Your task to perform on an android device: Add alienware aurora to the cart on amazon Image 0: 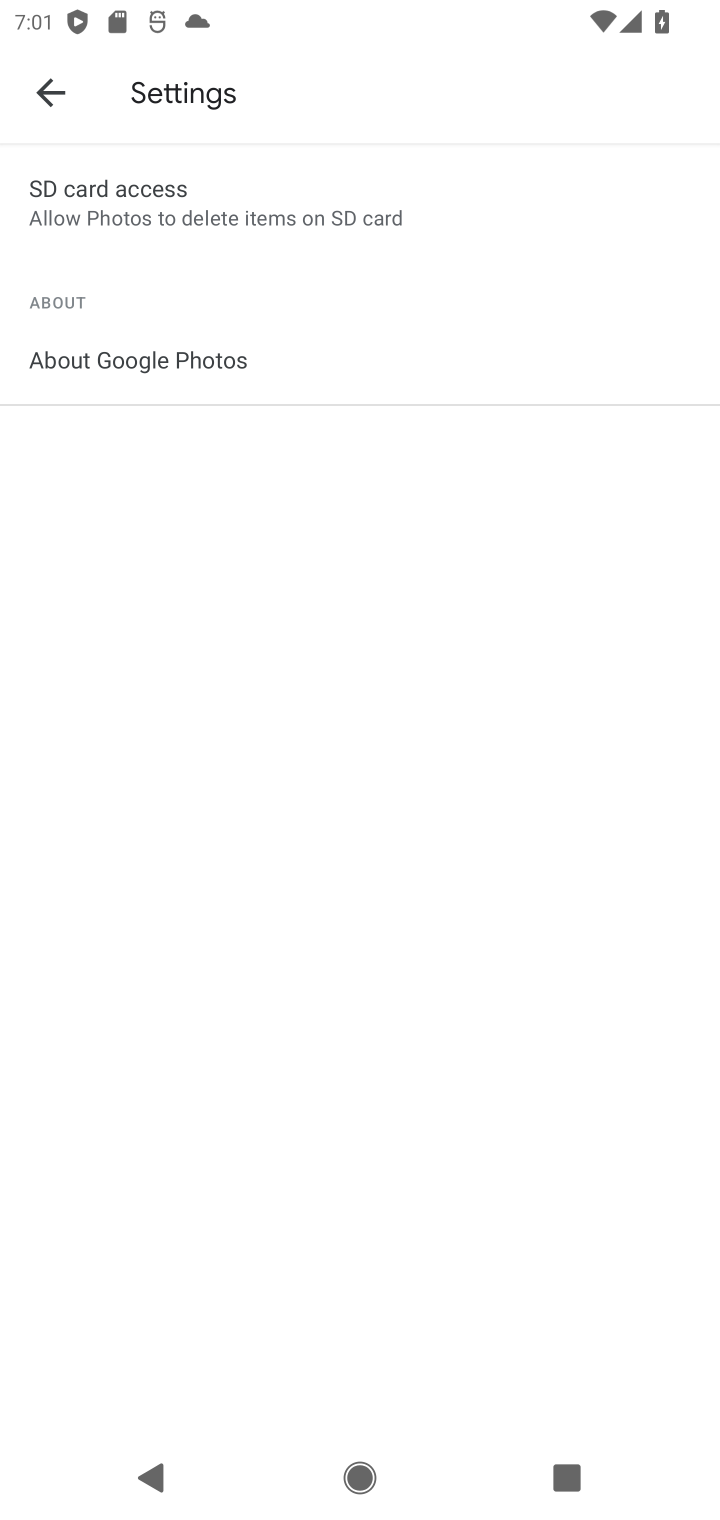
Step 0: press home button
Your task to perform on an android device: Add alienware aurora to the cart on amazon Image 1: 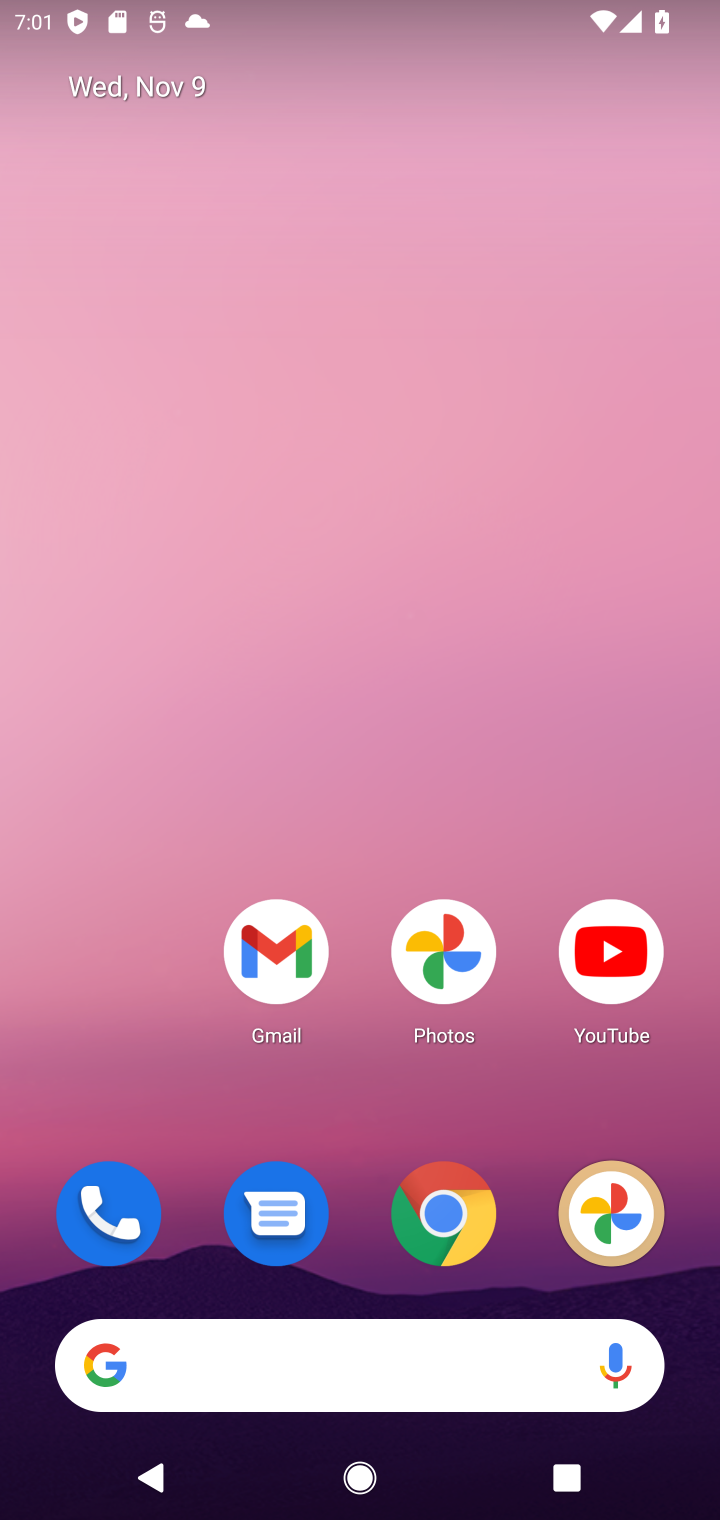
Step 1: click (428, 1227)
Your task to perform on an android device: Add alienware aurora to the cart on amazon Image 2: 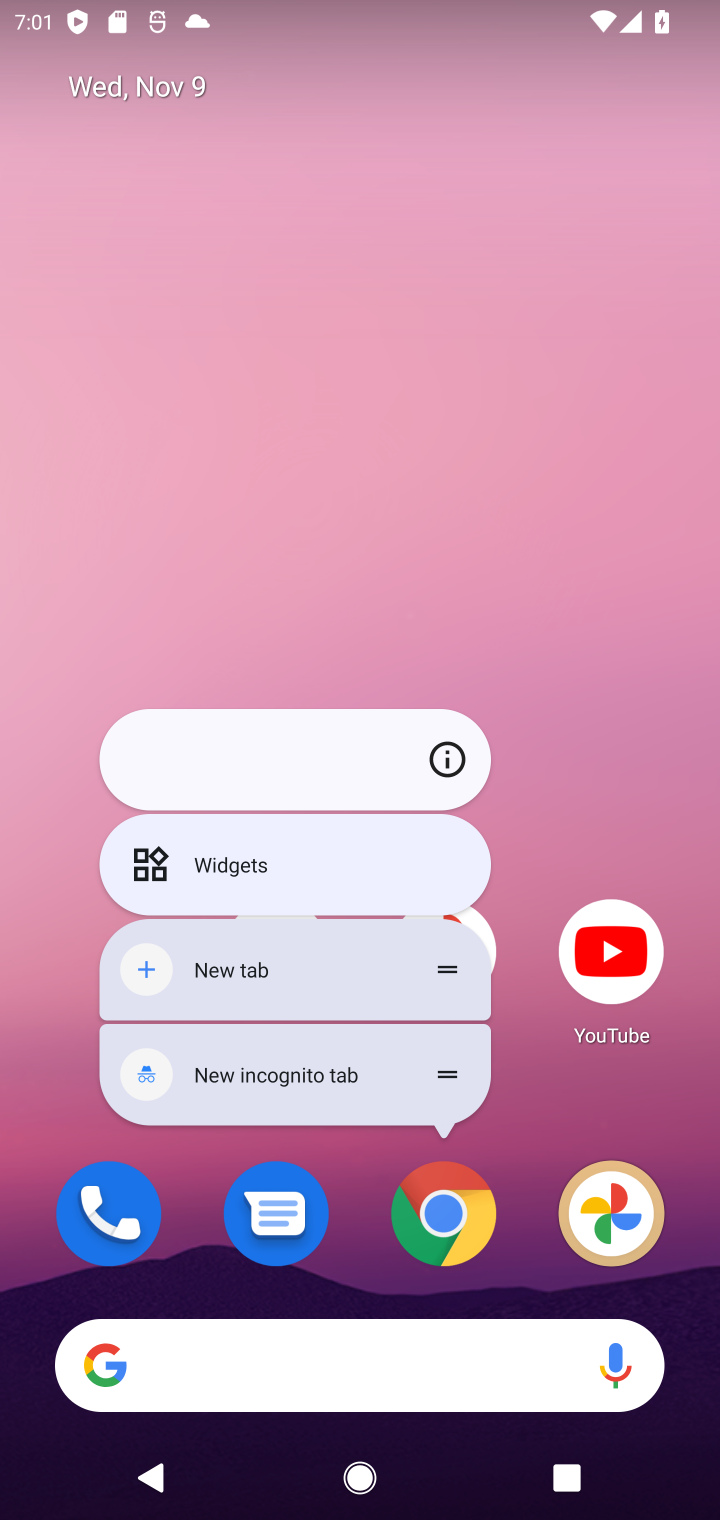
Step 2: click (475, 1246)
Your task to perform on an android device: Add alienware aurora to the cart on amazon Image 3: 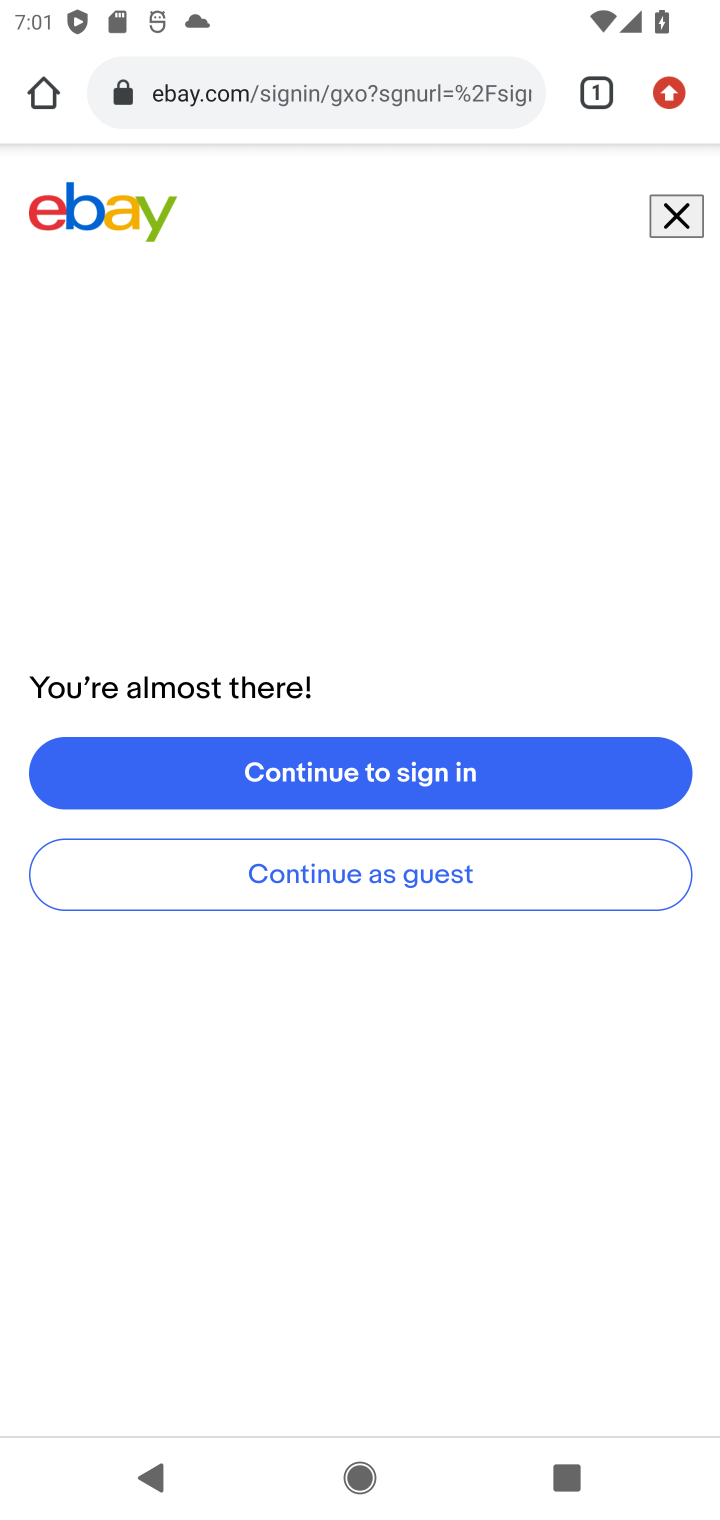
Step 3: click (351, 105)
Your task to perform on an android device: Add alienware aurora to the cart on amazon Image 4: 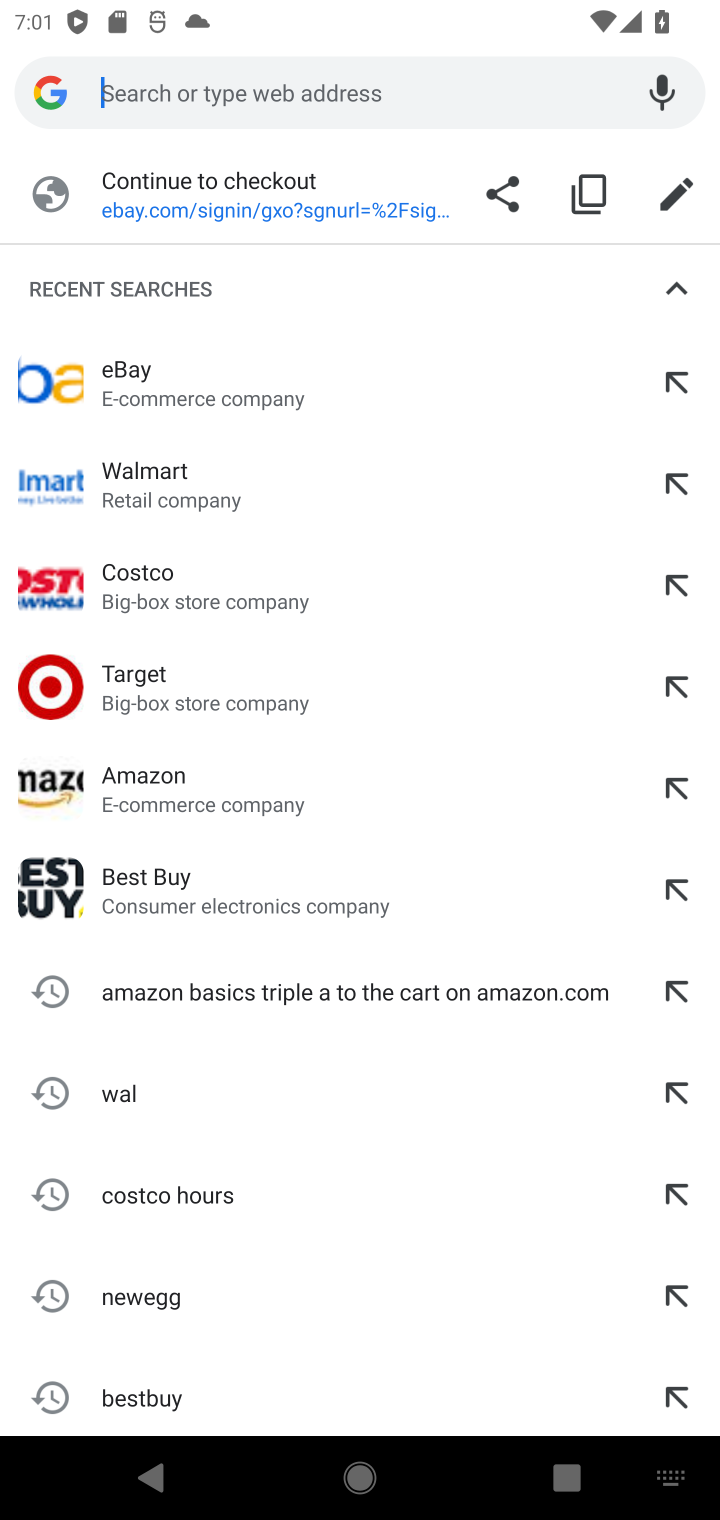
Step 4: type "alienware aurora"
Your task to perform on an android device: Add alienware aurora to the cart on amazon Image 5: 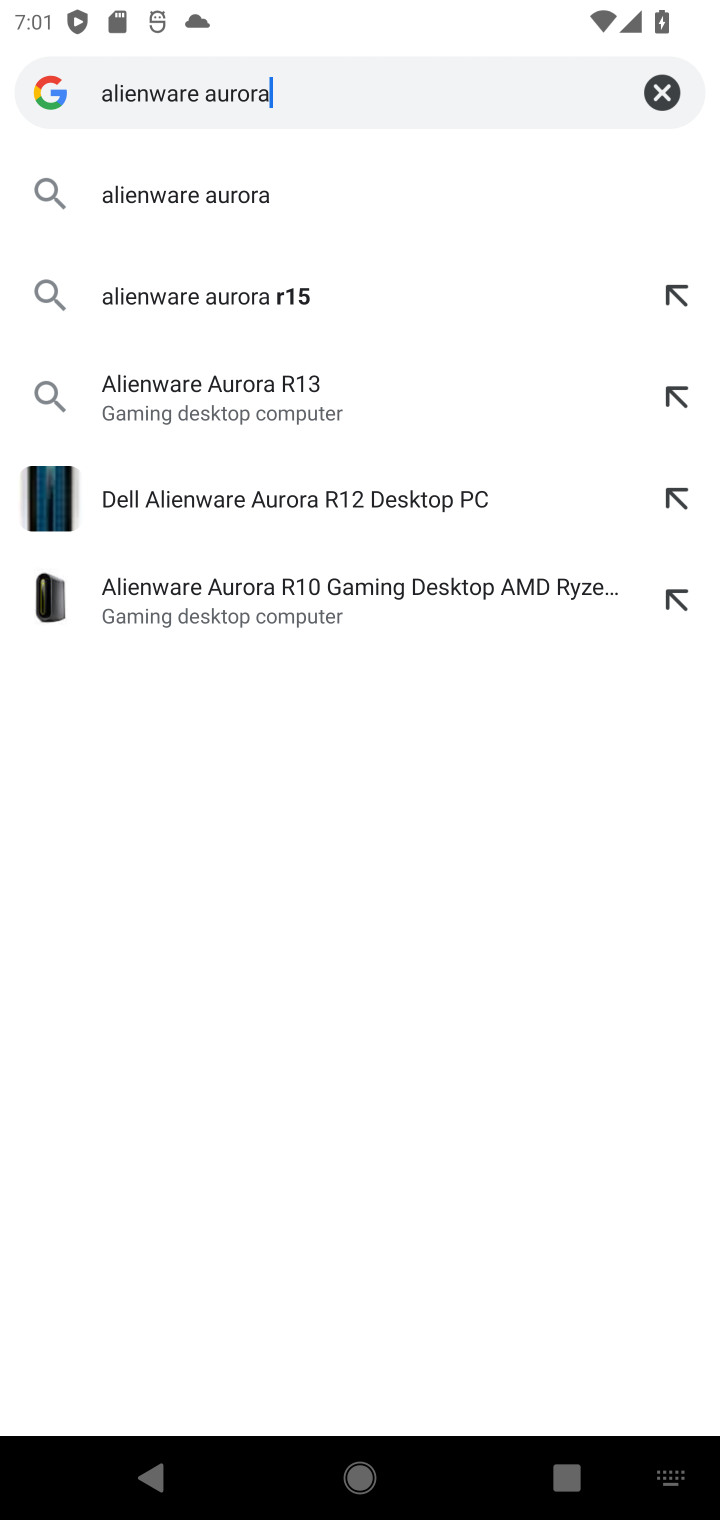
Step 5: click (280, 413)
Your task to perform on an android device: Add alienware aurora to the cart on amazon Image 6: 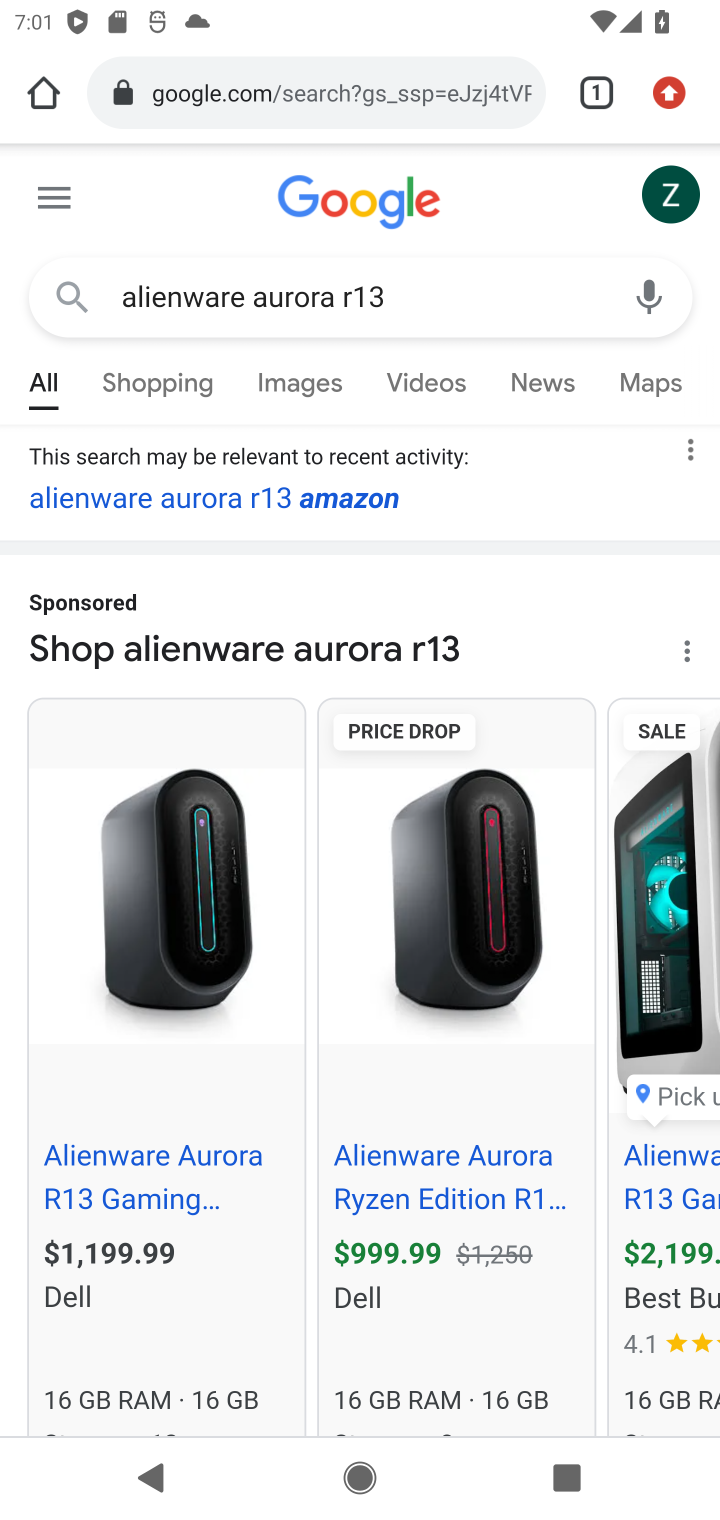
Step 6: click (173, 930)
Your task to perform on an android device: Add alienware aurora to the cart on amazon Image 7: 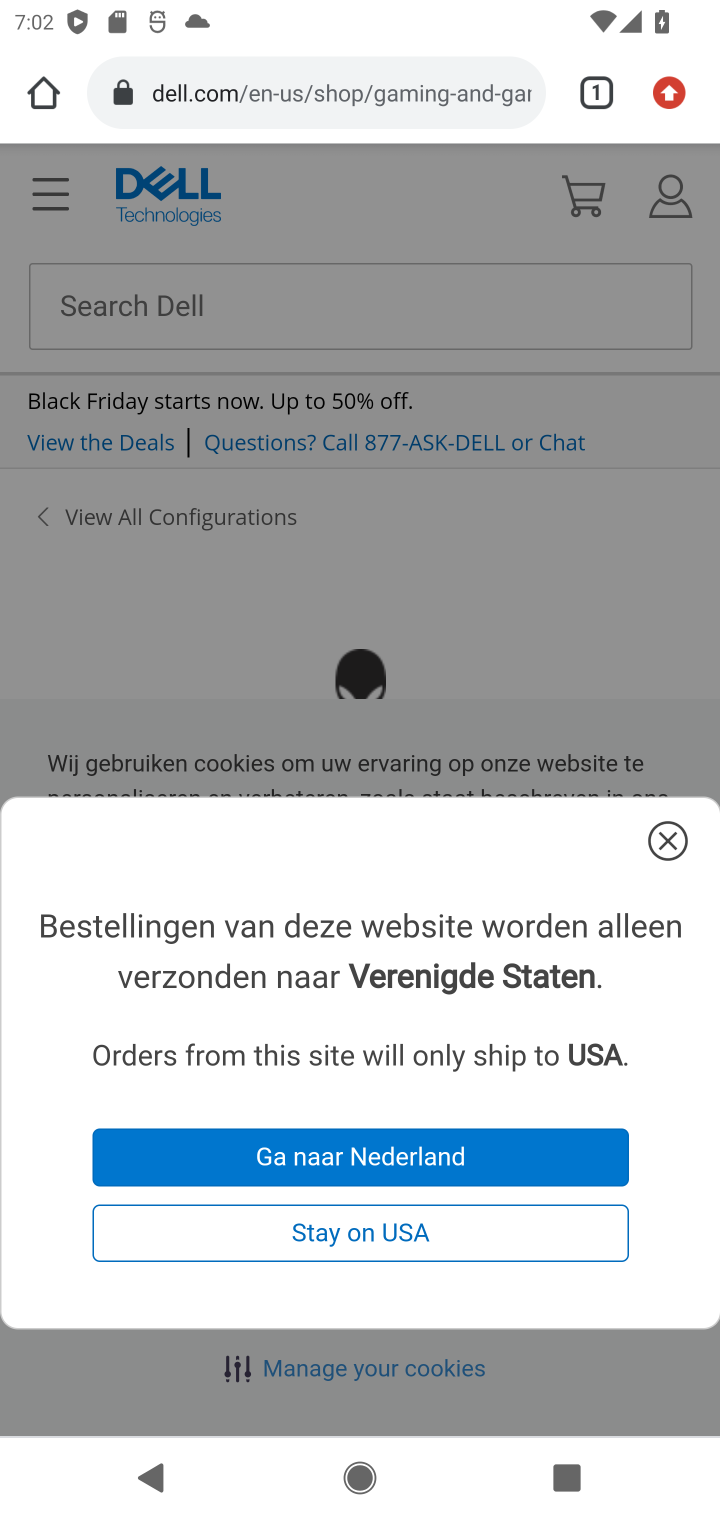
Step 7: click (677, 831)
Your task to perform on an android device: Add alienware aurora to the cart on amazon Image 8: 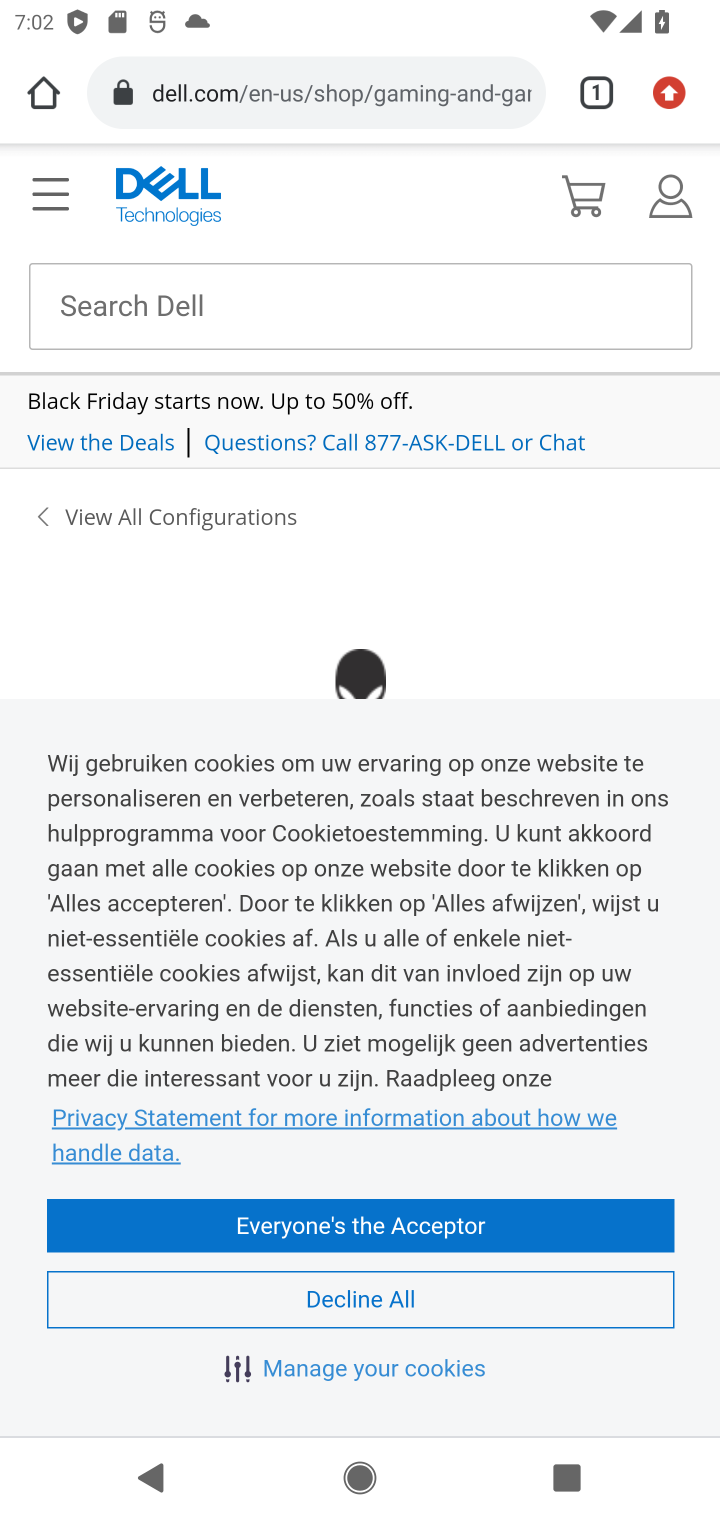
Step 8: click (348, 1305)
Your task to perform on an android device: Add alienware aurora to the cart on amazon Image 9: 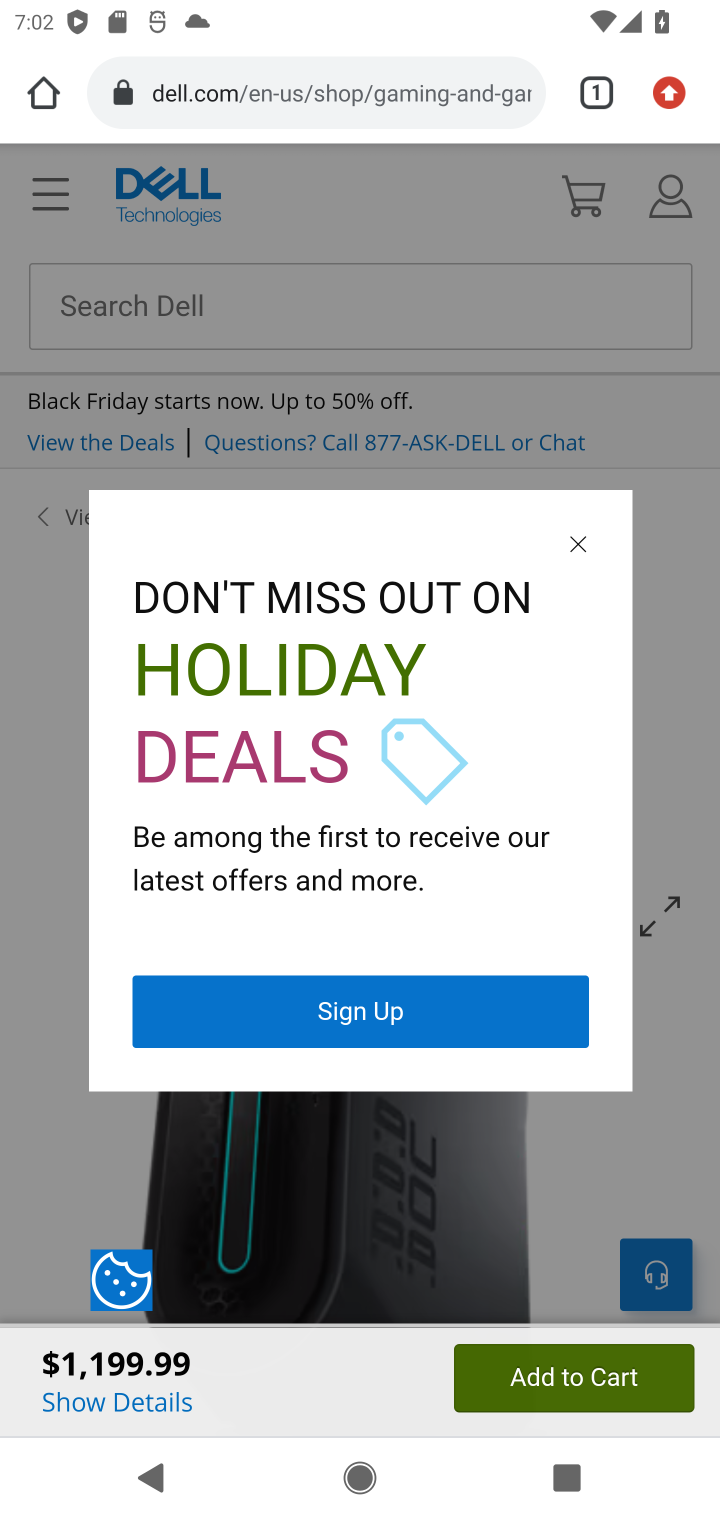
Step 9: click (574, 549)
Your task to perform on an android device: Add alienware aurora to the cart on amazon Image 10: 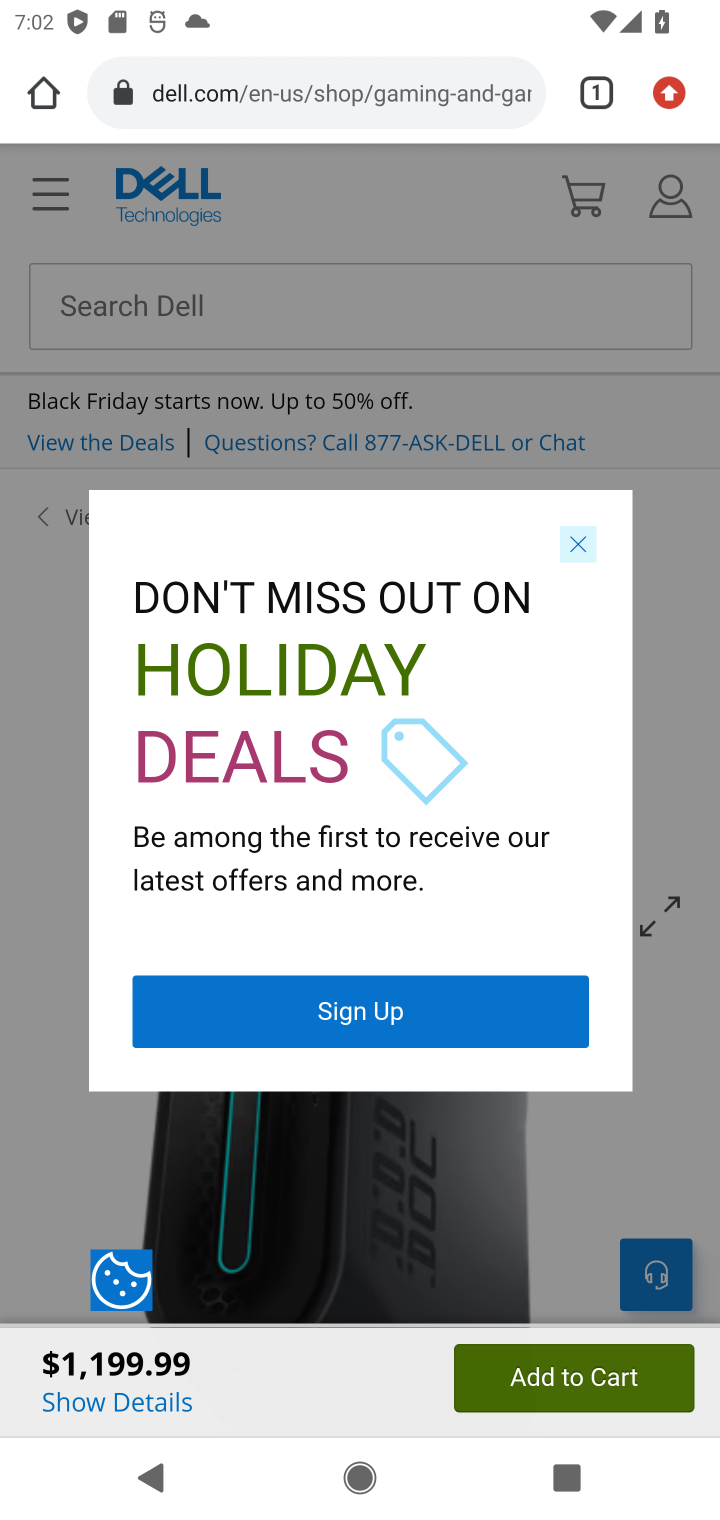
Step 10: click (589, 551)
Your task to perform on an android device: Add alienware aurora to the cart on amazon Image 11: 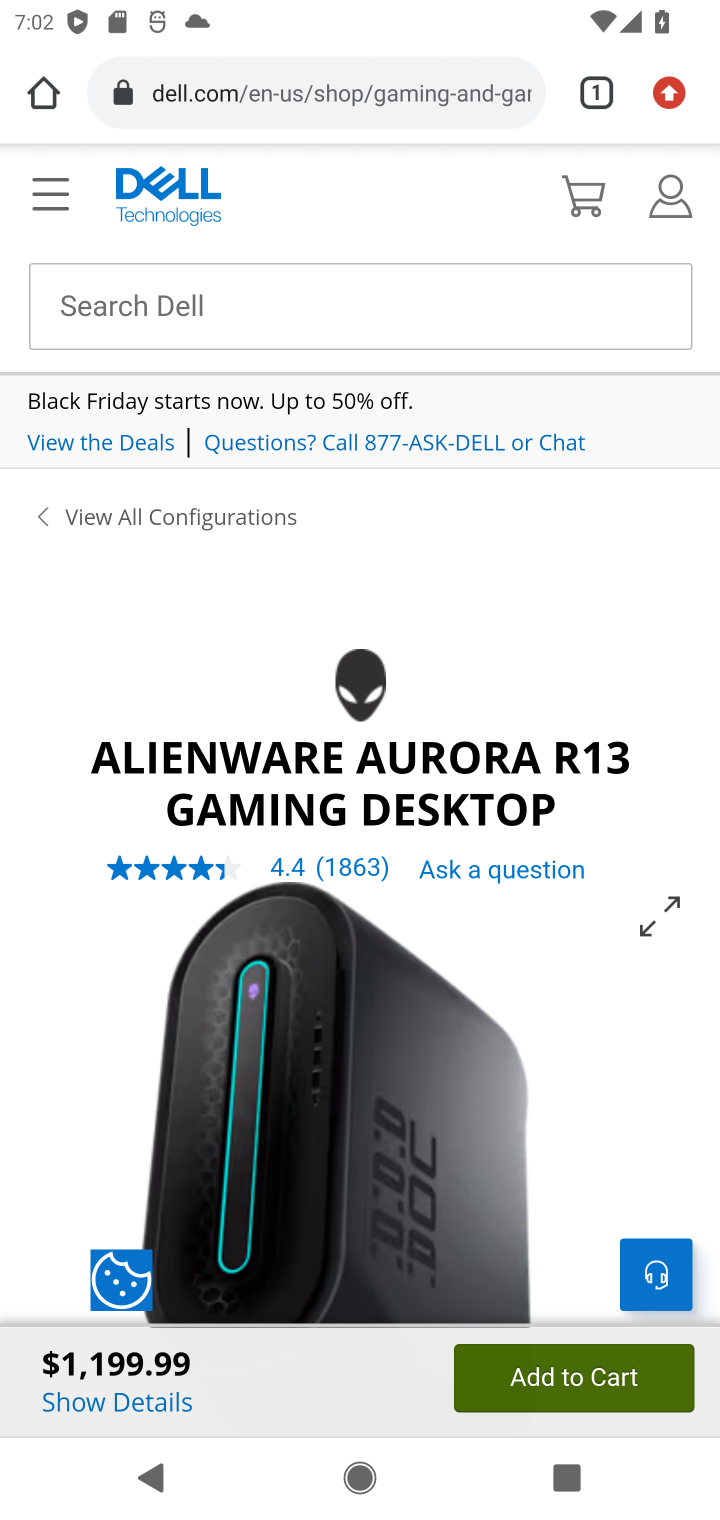
Step 11: click (558, 1363)
Your task to perform on an android device: Add alienware aurora to the cart on amazon Image 12: 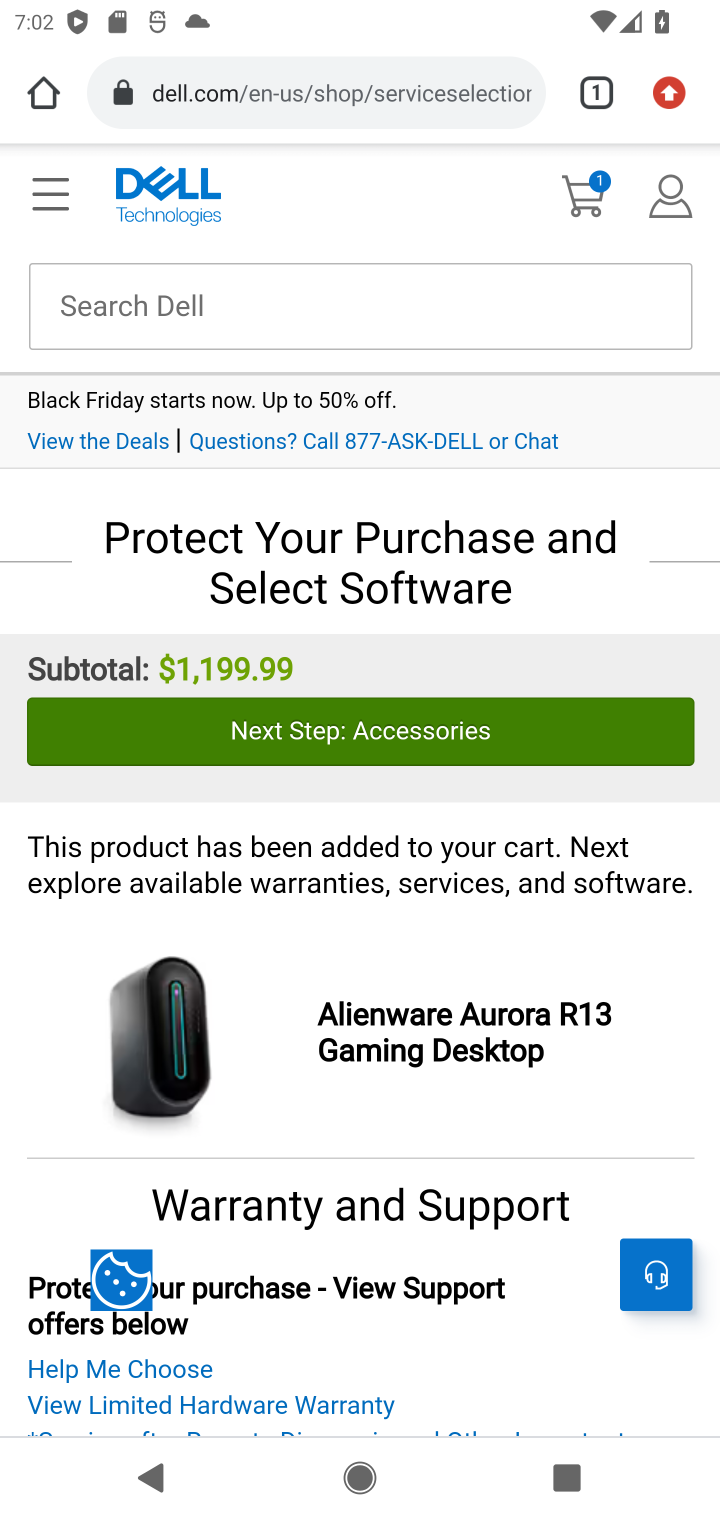
Step 12: click (576, 201)
Your task to perform on an android device: Add alienware aurora to the cart on amazon Image 13: 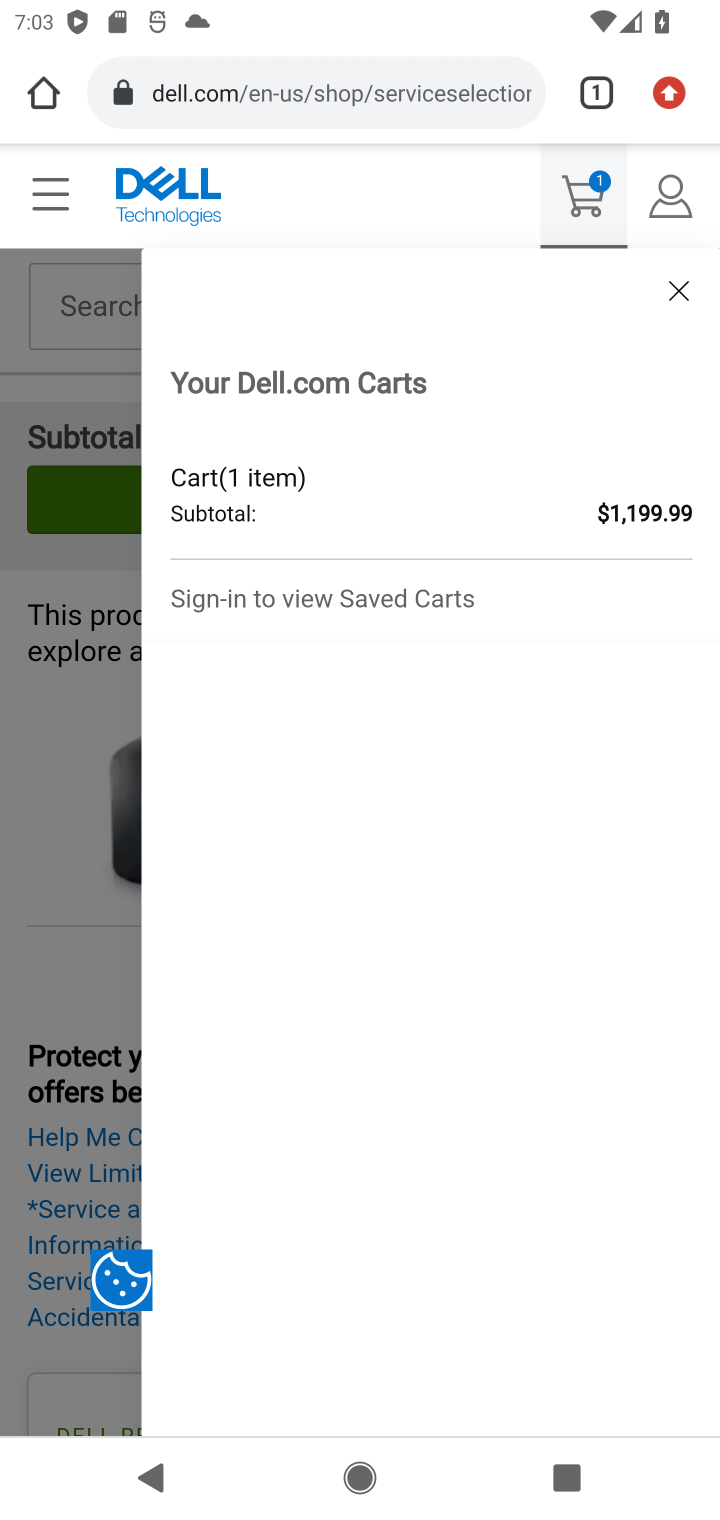
Step 13: click (677, 277)
Your task to perform on an android device: Add alienware aurora to the cart on amazon Image 14: 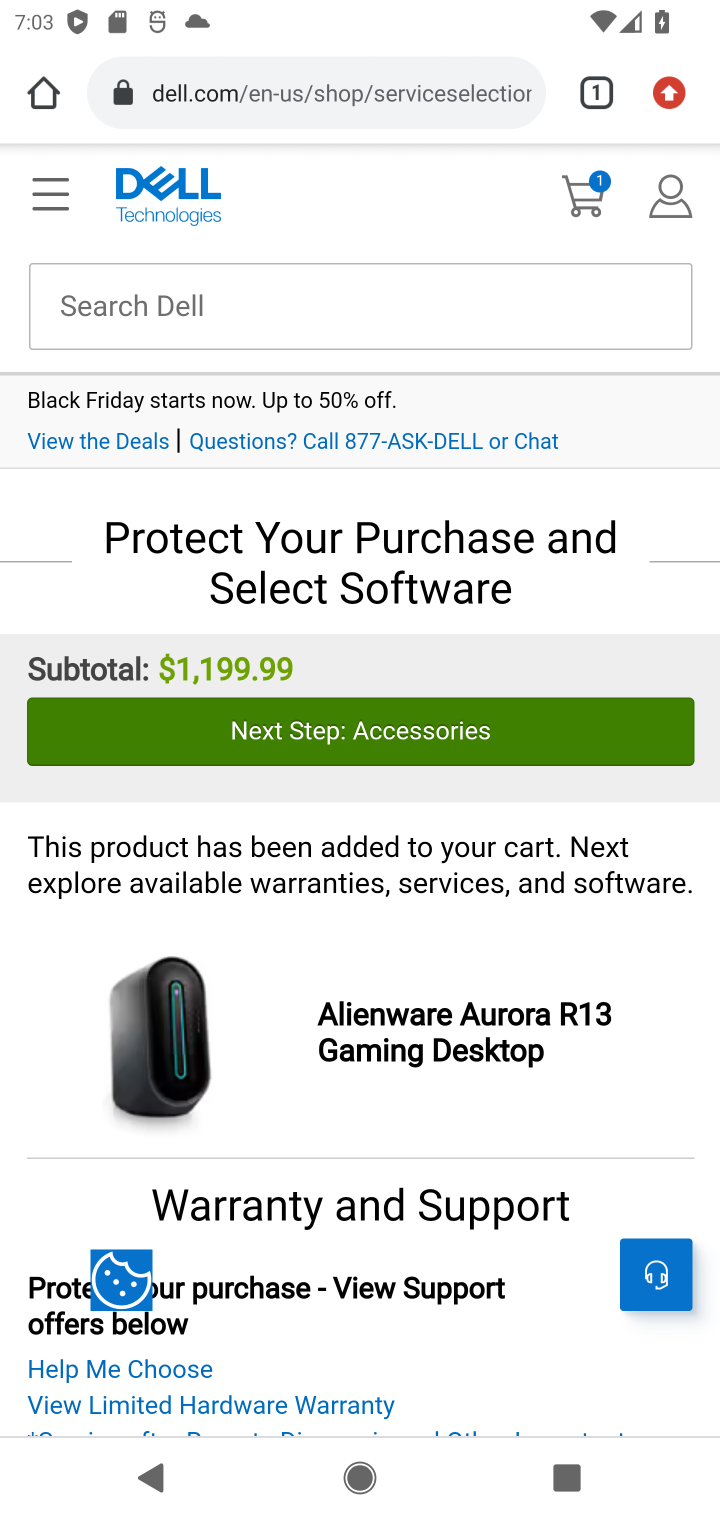
Step 14: task complete